Your task to perform on an android device: Open Google Chrome Image 0: 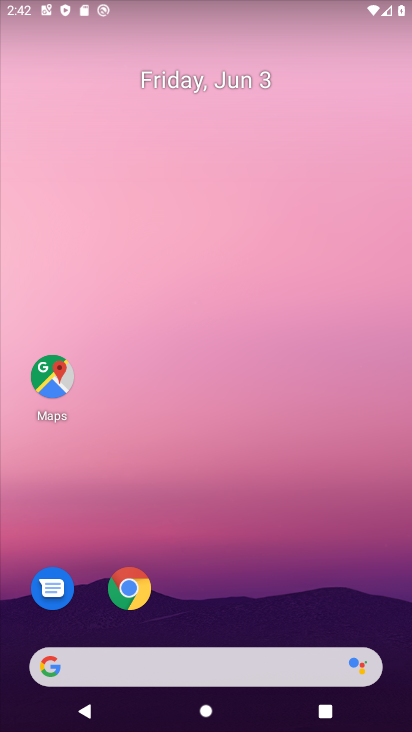
Step 0: drag from (218, 608) to (259, 204)
Your task to perform on an android device: Open Google Chrome Image 1: 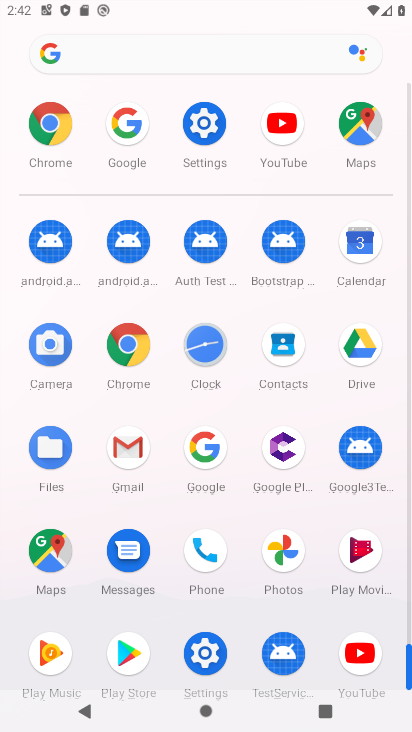
Step 1: click (117, 359)
Your task to perform on an android device: Open Google Chrome Image 2: 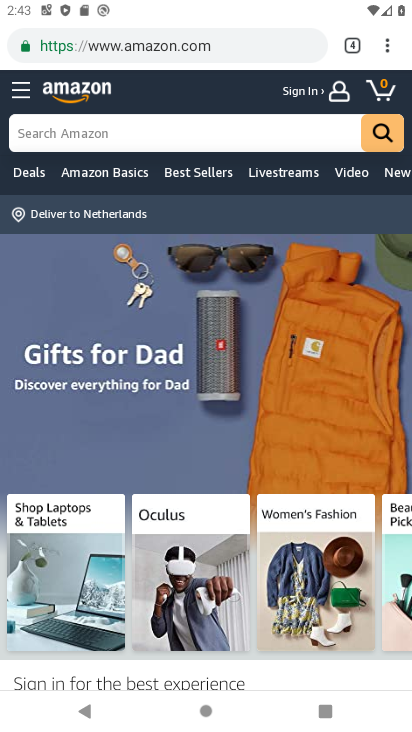
Step 2: task complete